Your task to perform on an android device: turn on priority inbox in the gmail app Image 0: 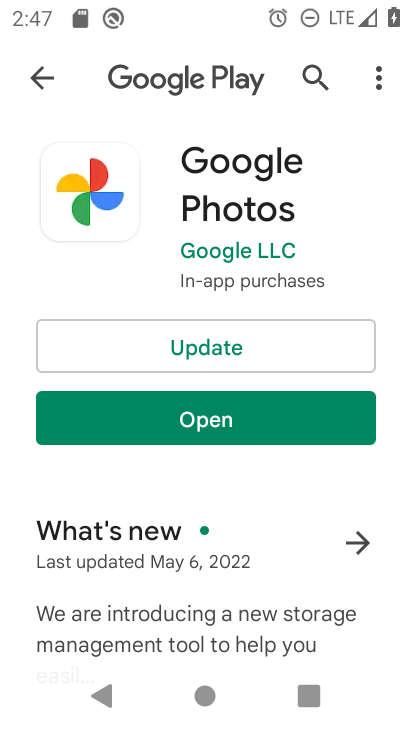
Step 0: press back button
Your task to perform on an android device: turn on priority inbox in the gmail app Image 1: 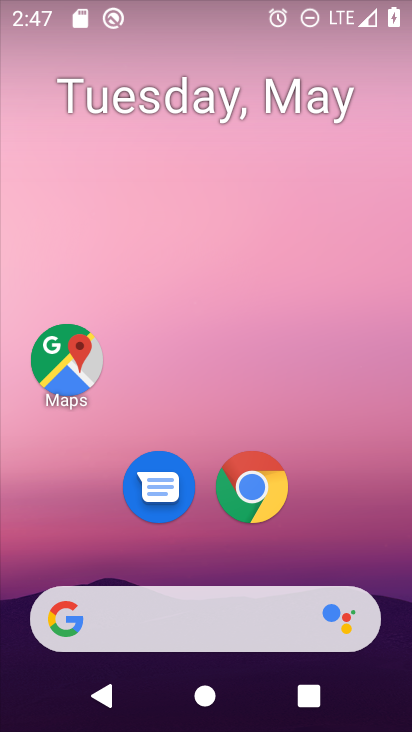
Step 1: drag from (66, 516) to (236, 159)
Your task to perform on an android device: turn on priority inbox in the gmail app Image 2: 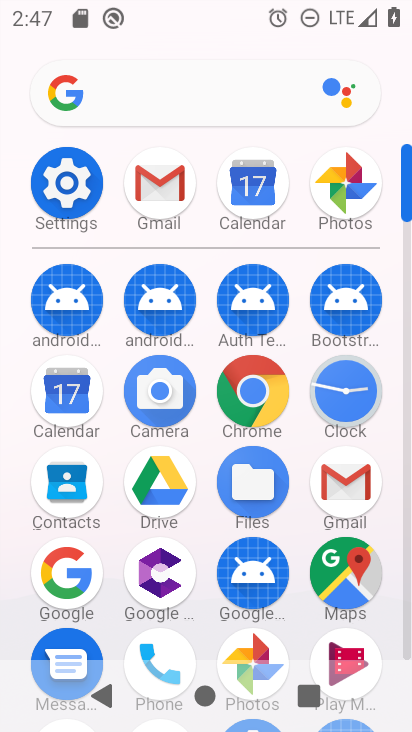
Step 2: click (349, 480)
Your task to perform on an android device: turn on priority inbox in the gmail app Image 3: 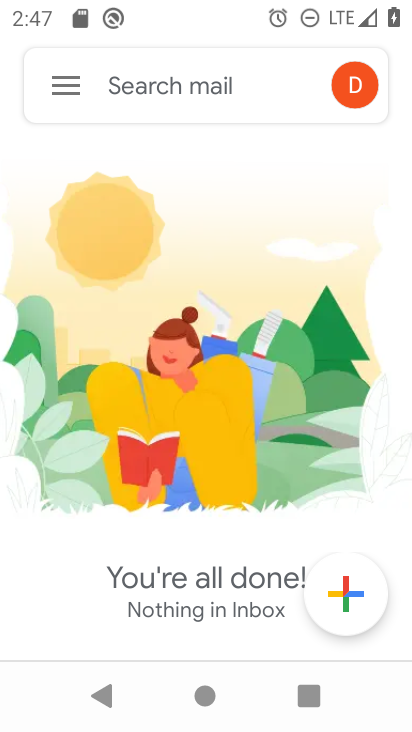
Step 3: click (45, 77)
Your task to perform on an android device: turn on priority inbox in the gmail app Image 4: 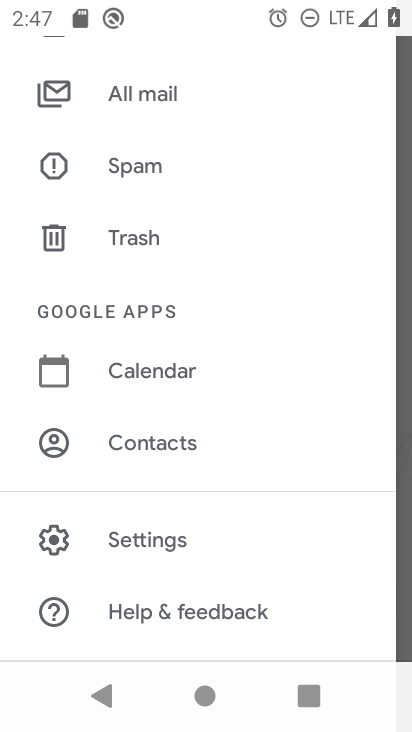
Step 4: click (83, 523)
Your task to perform on an android device: turn on priority inbox in the gmail app Image 5: 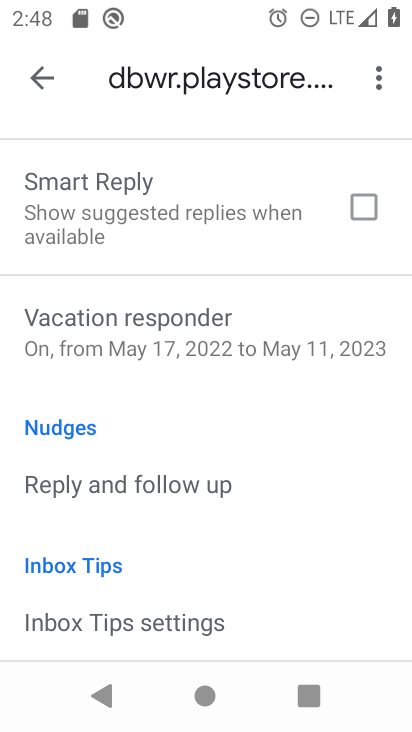
Step 5: drag from (154, 150) to (102, 505)
Your task to perform on an android device: turn on priority inbox in the gmail app Image 6: 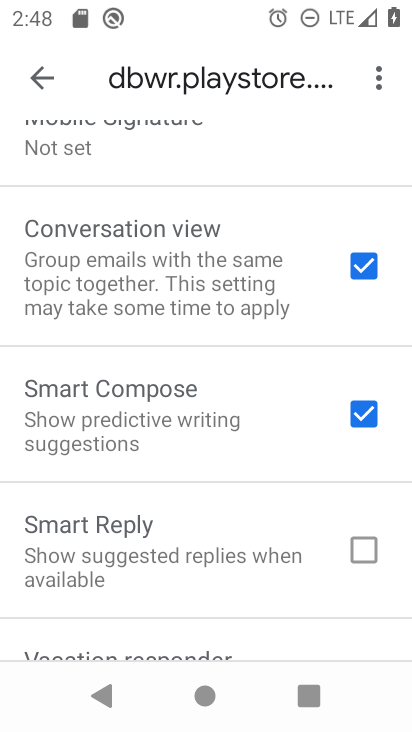
Step 6: drag from (184, 197) to (136, 503)
Your task to perform on an android device: turn on priority inbox in the gmail app Image 7: 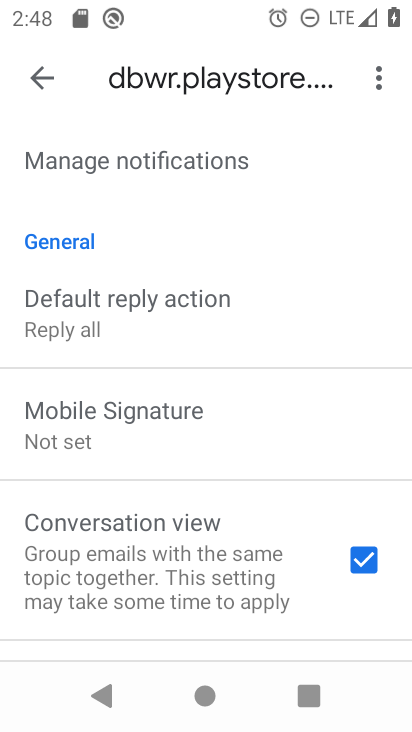
Step 7: drag from (186, 240) to (129, 587)
Your task to perform on an android device: turn on priority inbox in the gmail app Image 8: 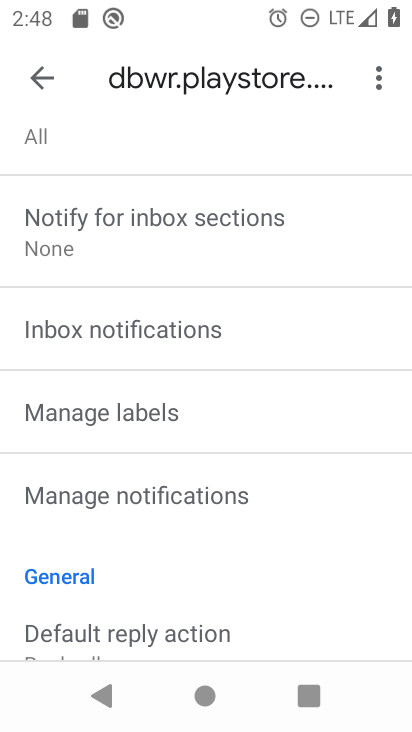
Step 8: drag from (209, 195) to (177, 586)
Your task to perform on an android device: turn on priority inbox in the gmail app Image 9: 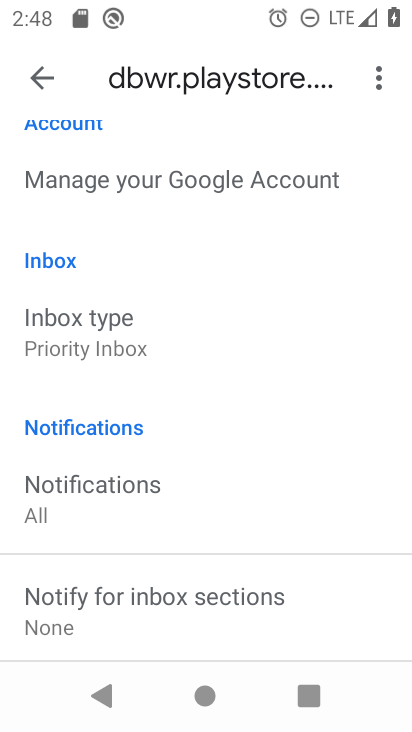
Step 9: click (135, 320)
Your task to perform on an android device: turn on priority inbox in the gmail app Image 10: 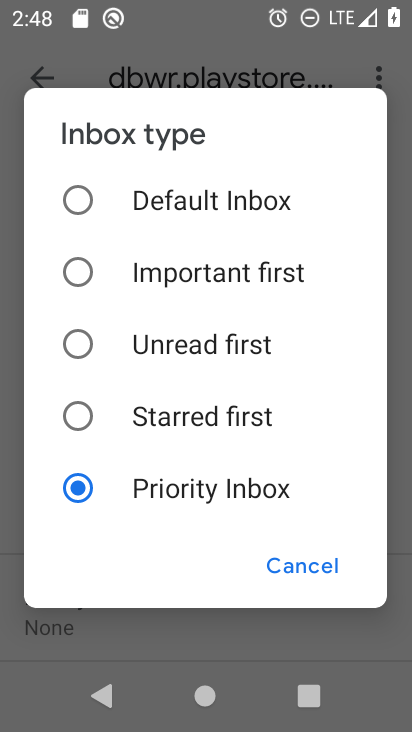
Step 10: task complete